Your task to perform on an android device: Open the calendar app, open the side menu, and click the "Day" option Image 0: 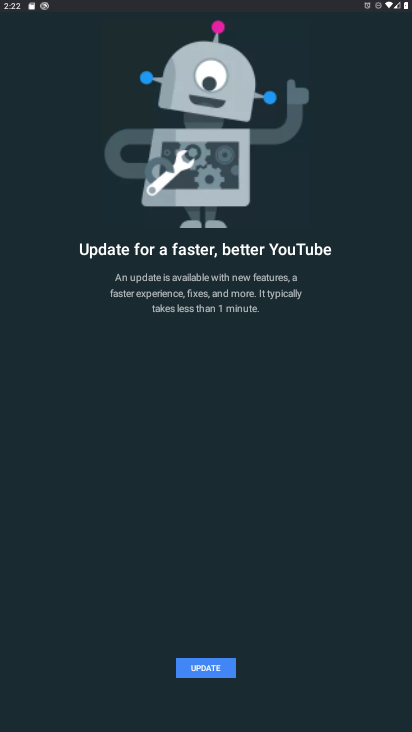
Step 0: press home button
Your task to perform on an android device: Open the calendar app, open the side menu, and click the "Day" option Image 1: 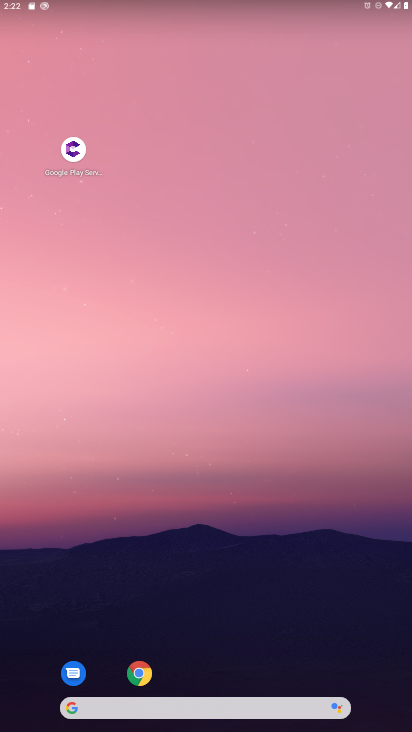
Step 1: drag from (214, 682) to (205, 590)
Your task to perform on an android device: Open the calendar app, open the side menu, and click the "Day" option Image 2: 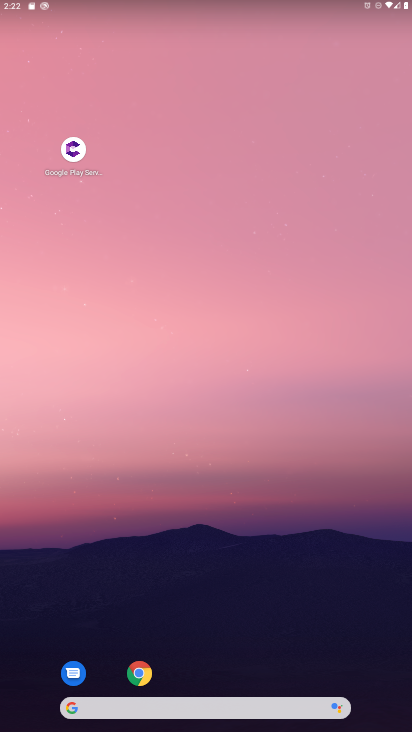
Step 2: drag from (218, 645) to (224, 494)
Your task to perform on an android device: Open the calendar app, open the side menu, and click the "Day" option Image 3: 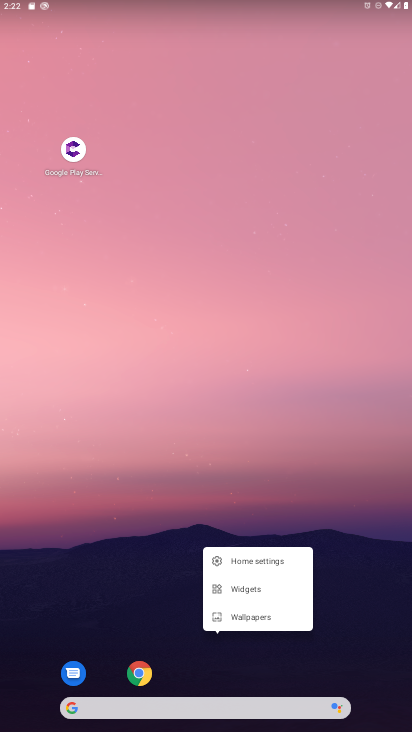
Step 3: click (304, 644)
Your task to perform on an android device: Open the calendar app, open the side menu, and click the "Day" option Image 4: 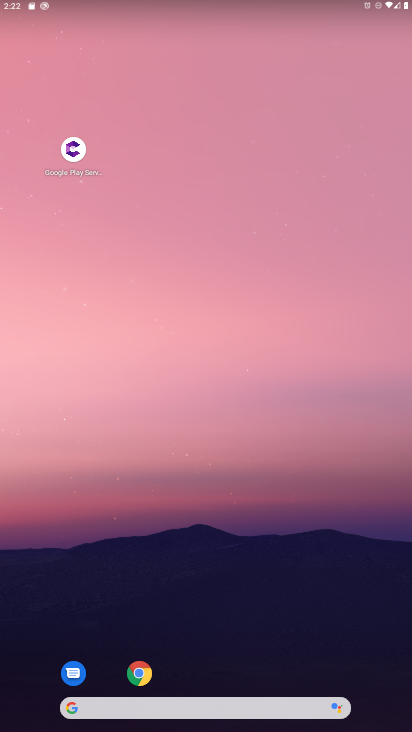
Step 4: drag from (215, 671) to (220, 320)
Your task to perform on an android device: Open the calendar app, open the side menu, and click the "Day" option Image 5: 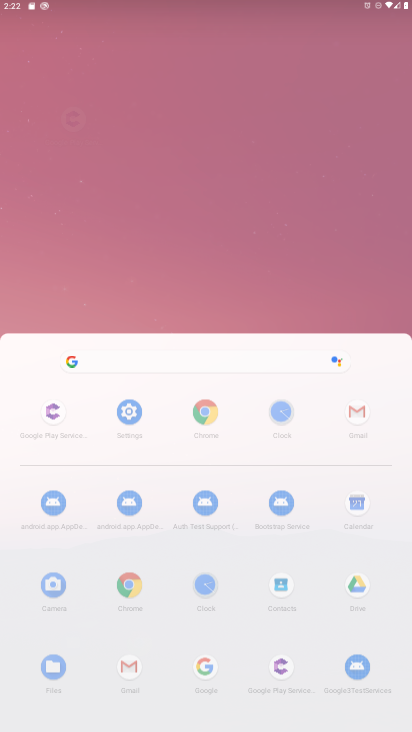
Step 5: drag from (148, 653) to (151, 143)
Your task to perform on an android device: Open the calendar app, open the side menu, and click the "Day" option Image 6: 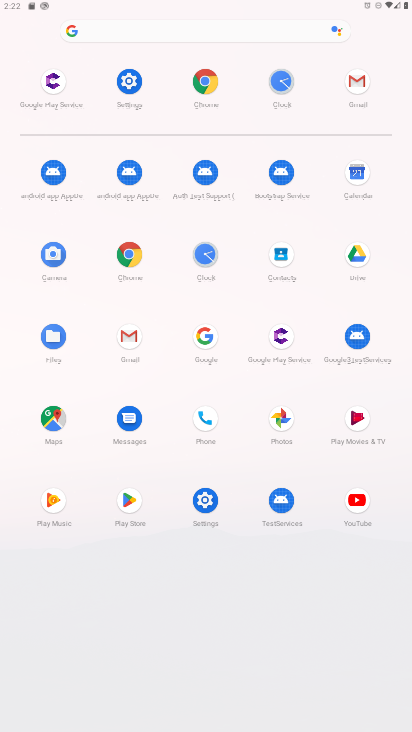
Step 6: click (353, 170)
Your task to perform on an android device: Open the calendar app, open the side menu, and click the "Day" option Image 7: 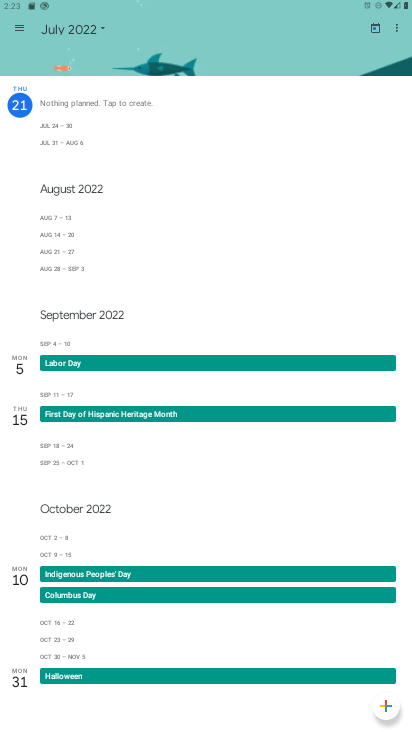
Step 7: click (18, 16)
Your task to perform on an android device: Open the calendar app, open the side menu, and click the "Day" option Image 8: 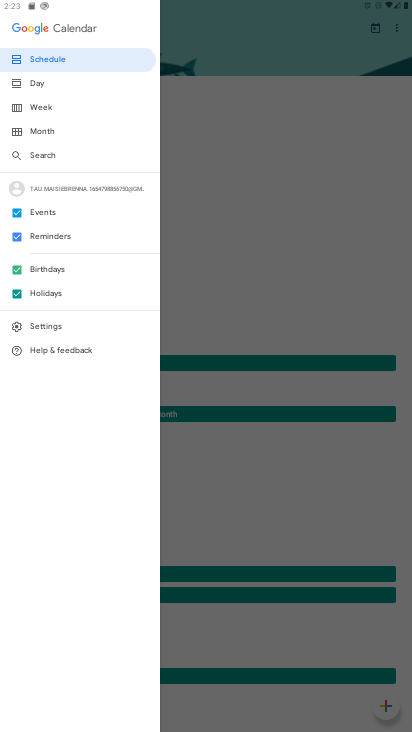
Step 8: click (37, 81)
Your task to perform on an android device: Open the calendar app, open the side menu, and click the "Day" option Image 9: 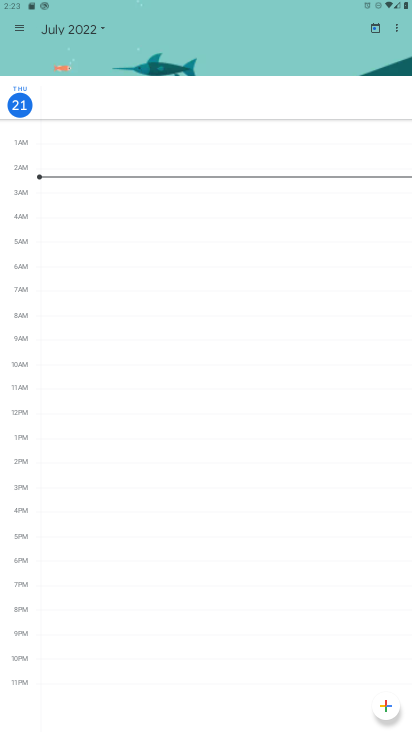
Step 9: click (25, 26)
Your task to perform on an android device: Open the calendar app, open the side menu, and click the "Day" option Image 10: 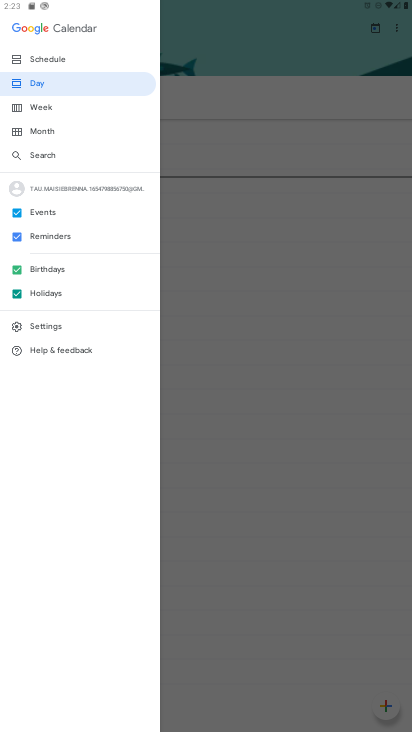
Step 10: task complete